Your task to perform on an android device: Open Google Chrome and click the shortcut for Amazon.com Image 0: 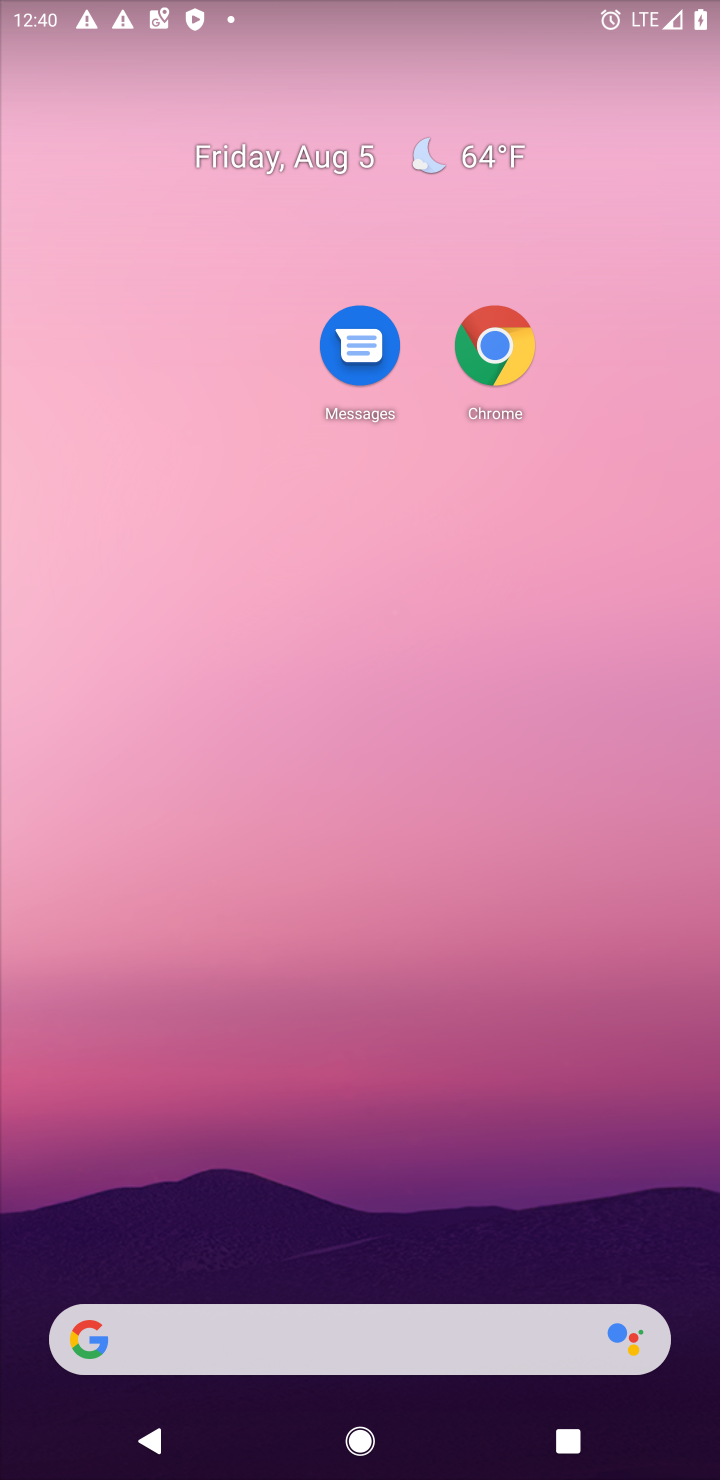
Step 0: drag from (355, 1193) to (67, 48)
Your task to perform on an android device: Open Google Chrome and click the shortcut for Amazon.com Image 1: 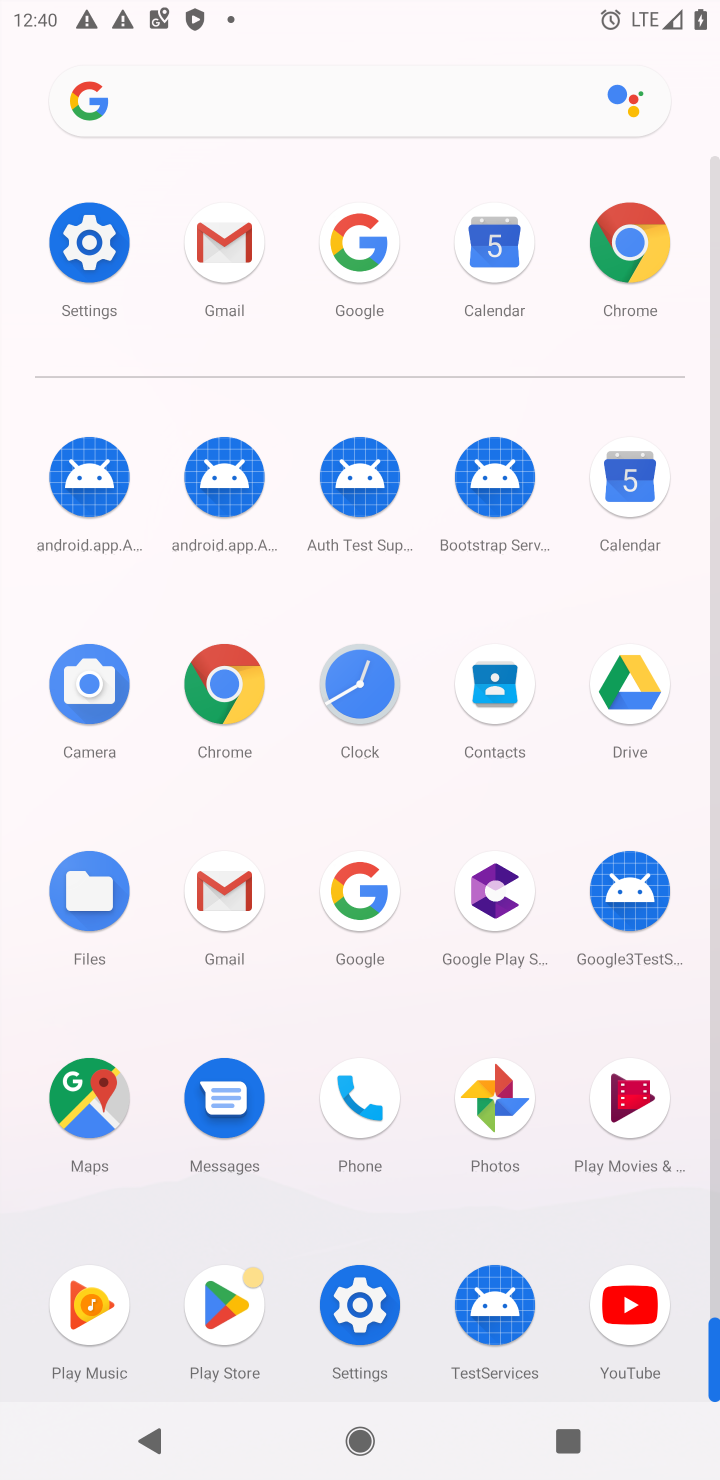
Step 1: click (619, 308)
Your task to perform on an android device: Open Google Chrome and click the shortcut for Amazon.com Image 2: 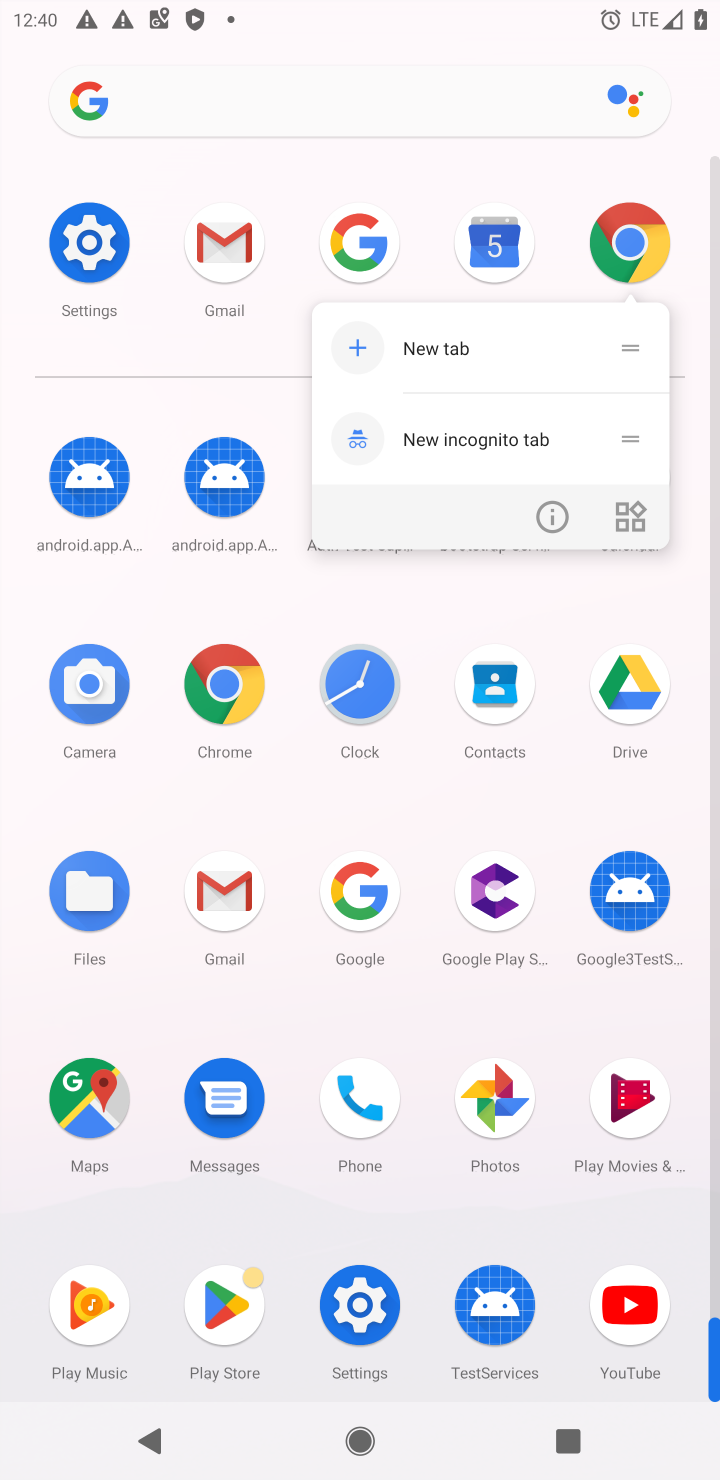
Step 2: click (619, 253)
Your task to perform on an android device: Open Google Chrome and click the shortcut for Amazon.com Image 3: 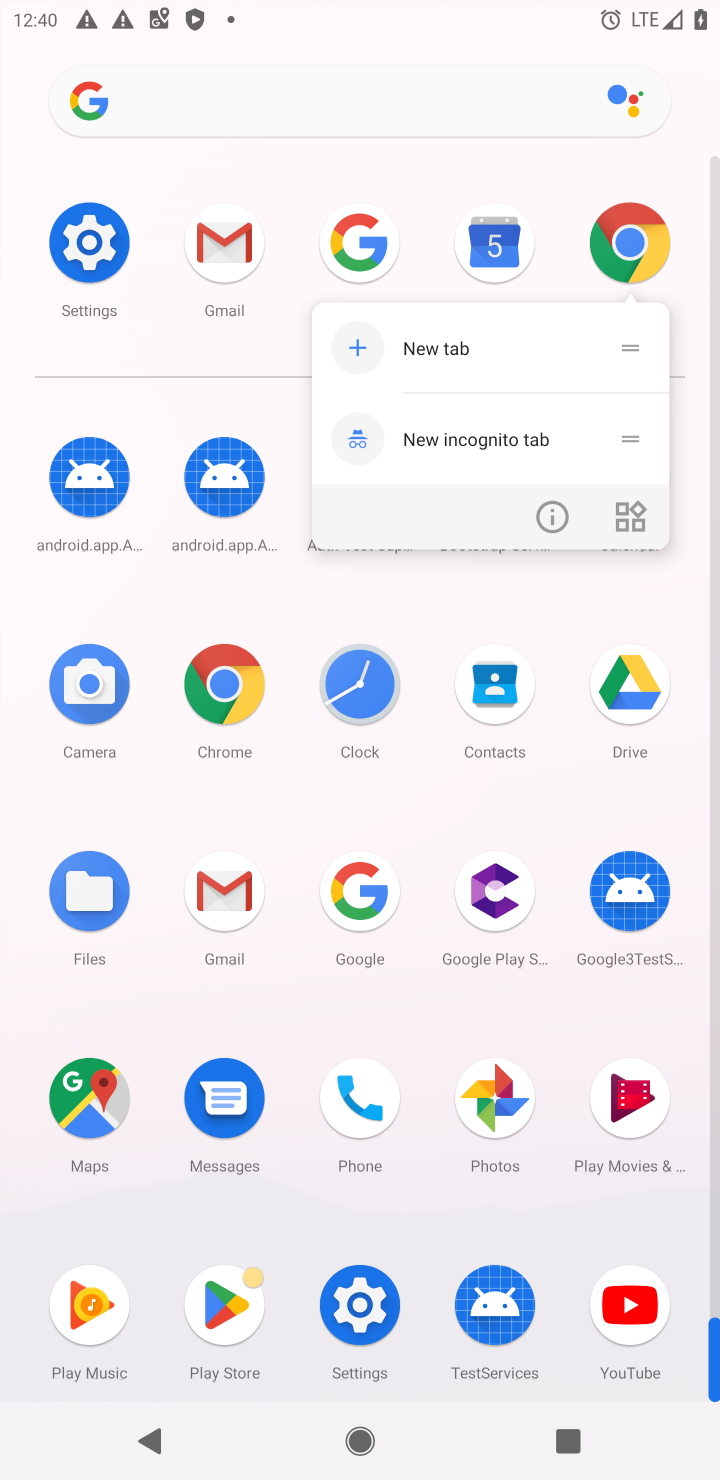
Step 3: click (619, 253)
Your task to perform on an android device: Open Google Chrome and click the shortcut for Amazon.com Image 4: 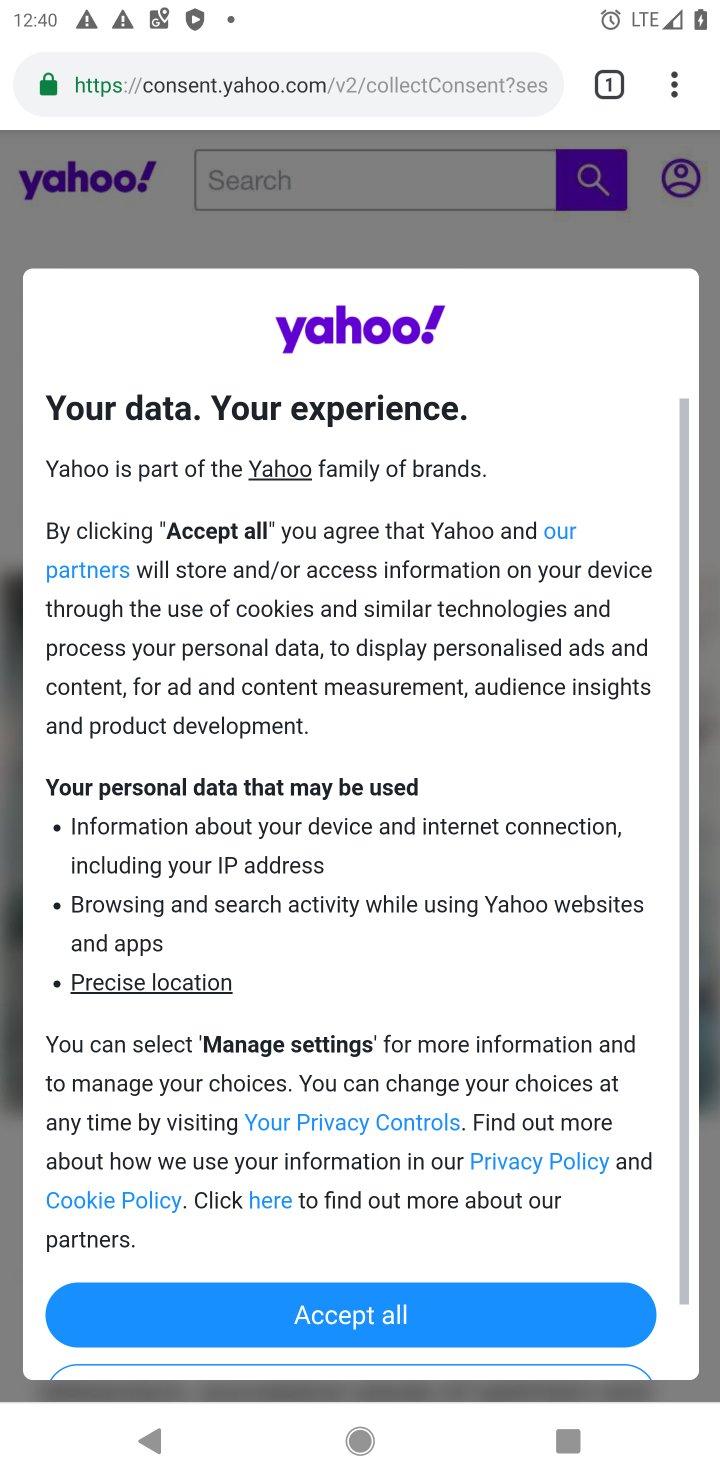
Step 4: click (426, 91)
Your task to perform on an android device: Open Google Chrome and click the shortcut for Amazon.com Image 5: 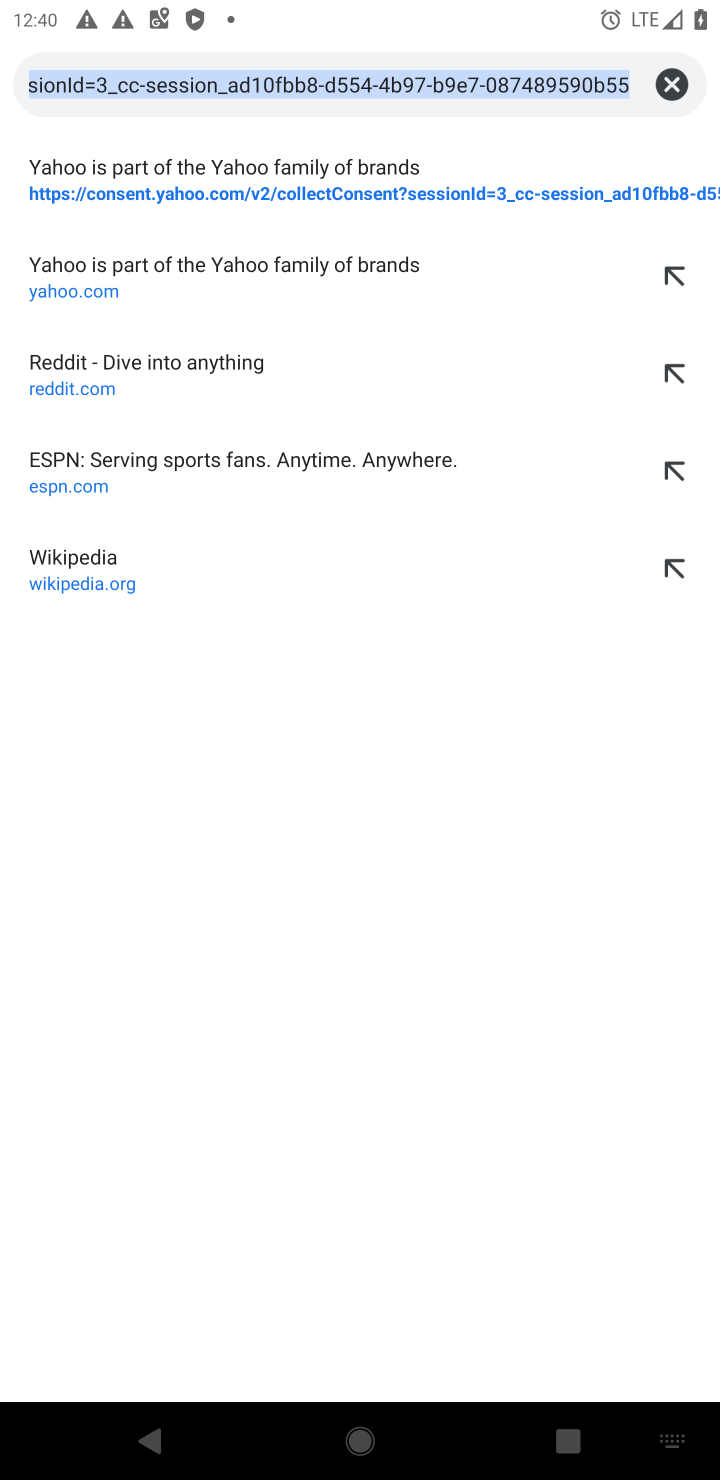
Step 5: click (669, 84)
Your task to perform on an android device: Open Google Chrome and click the shortcut for Amazon.com Image 6: 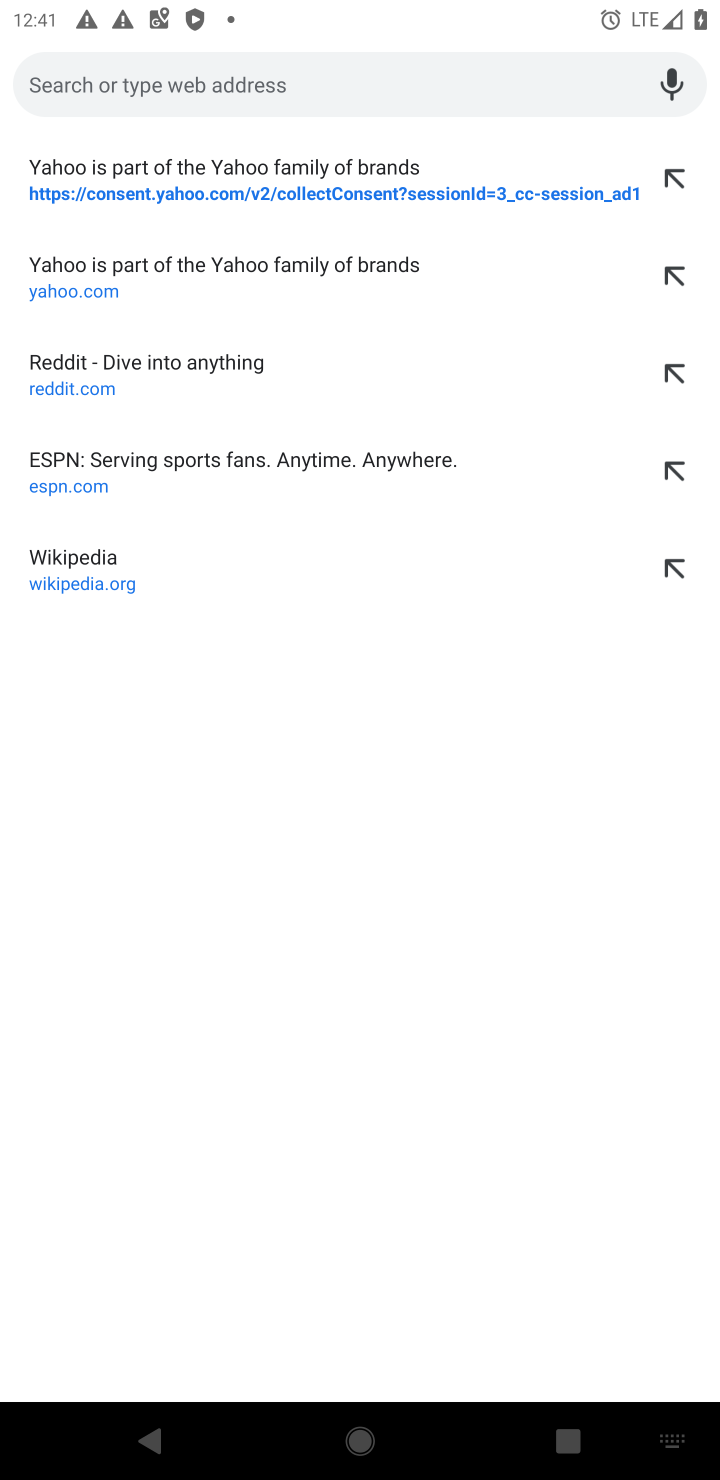
Step 6: type "Amazon.com"
Your task to perform on an android device: Open Google Chrome and click the shortcut for Amazon.com Image 7: 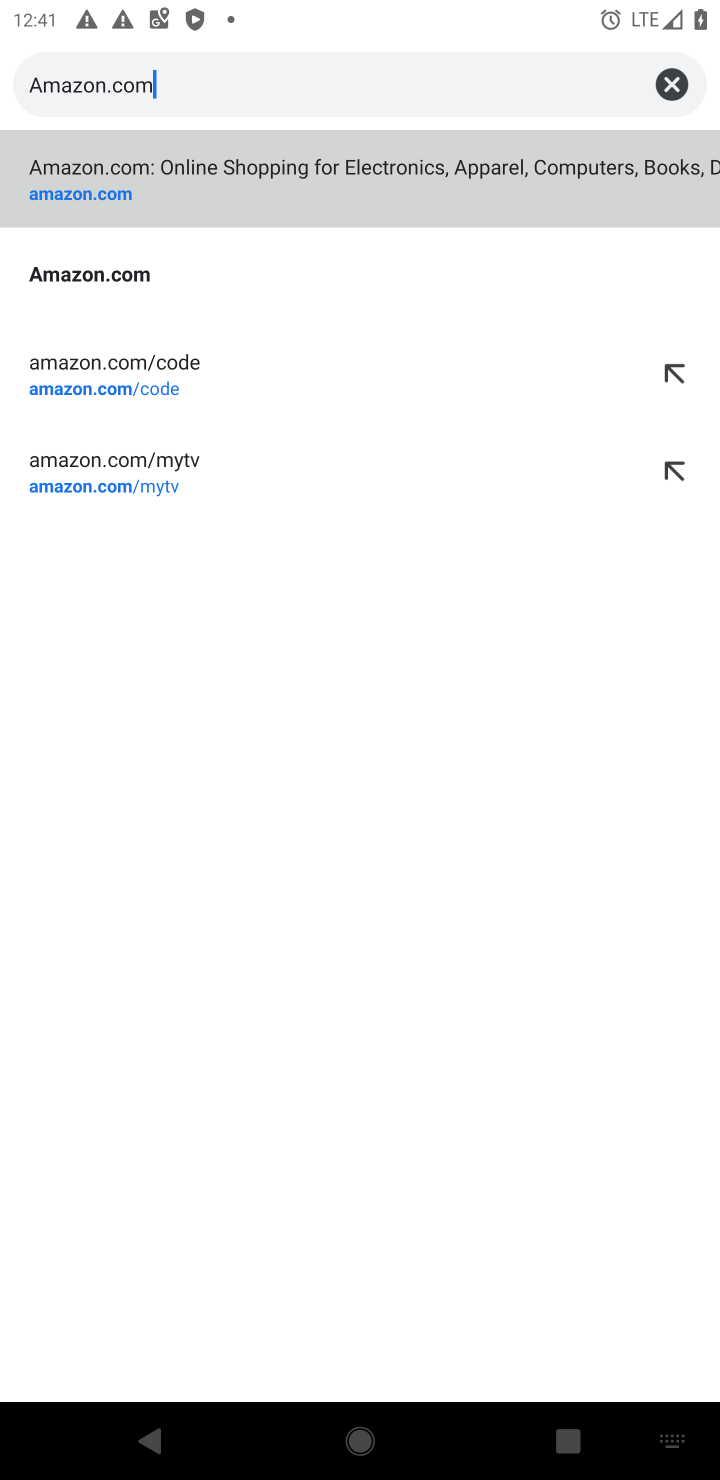
Step 7: click (114, 200)
Your task to perform on an android device: Open Google Chrome and click the shortcut for Amazon.com Image 8: 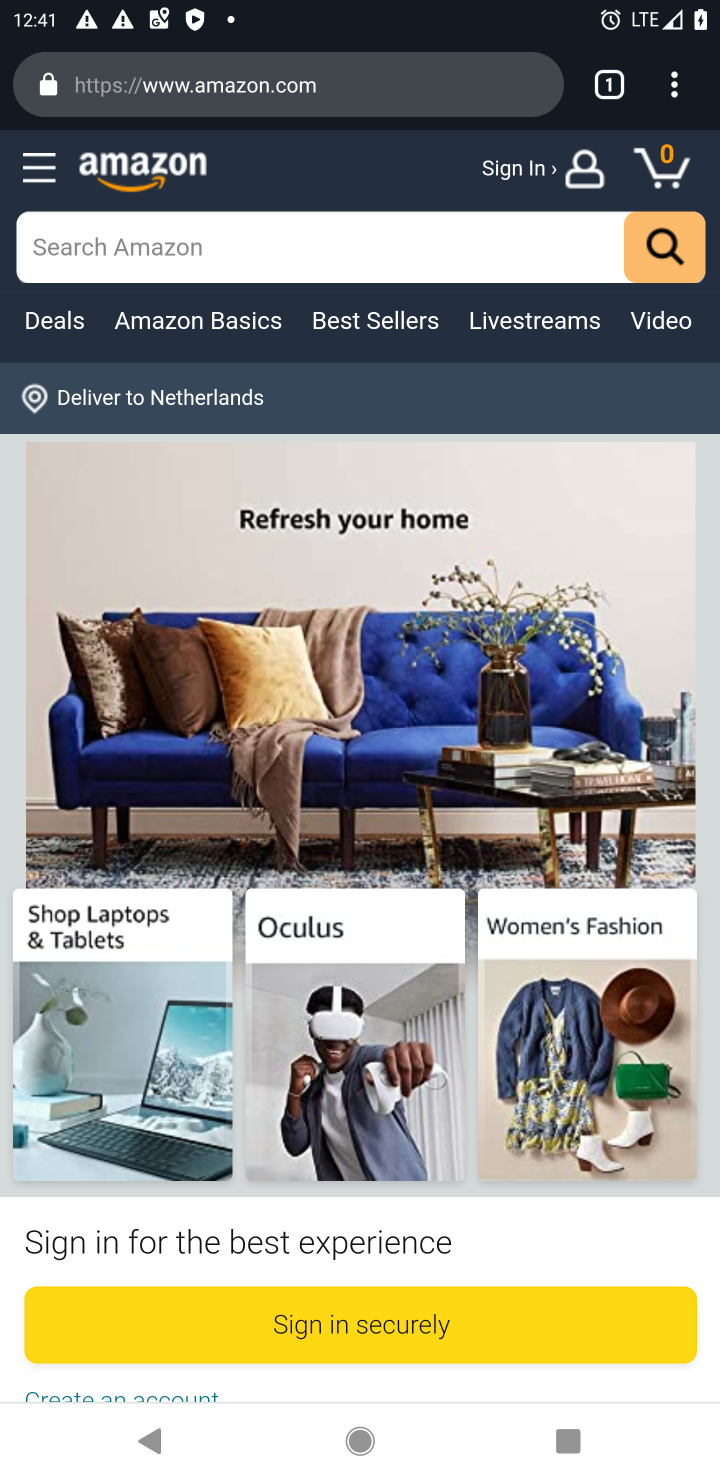
Step 8: drag from (680, 86) to (467, 792)
Your task to perform on an android device: Open Google Chrome and click the shortcut for Amazon.com Image 9: 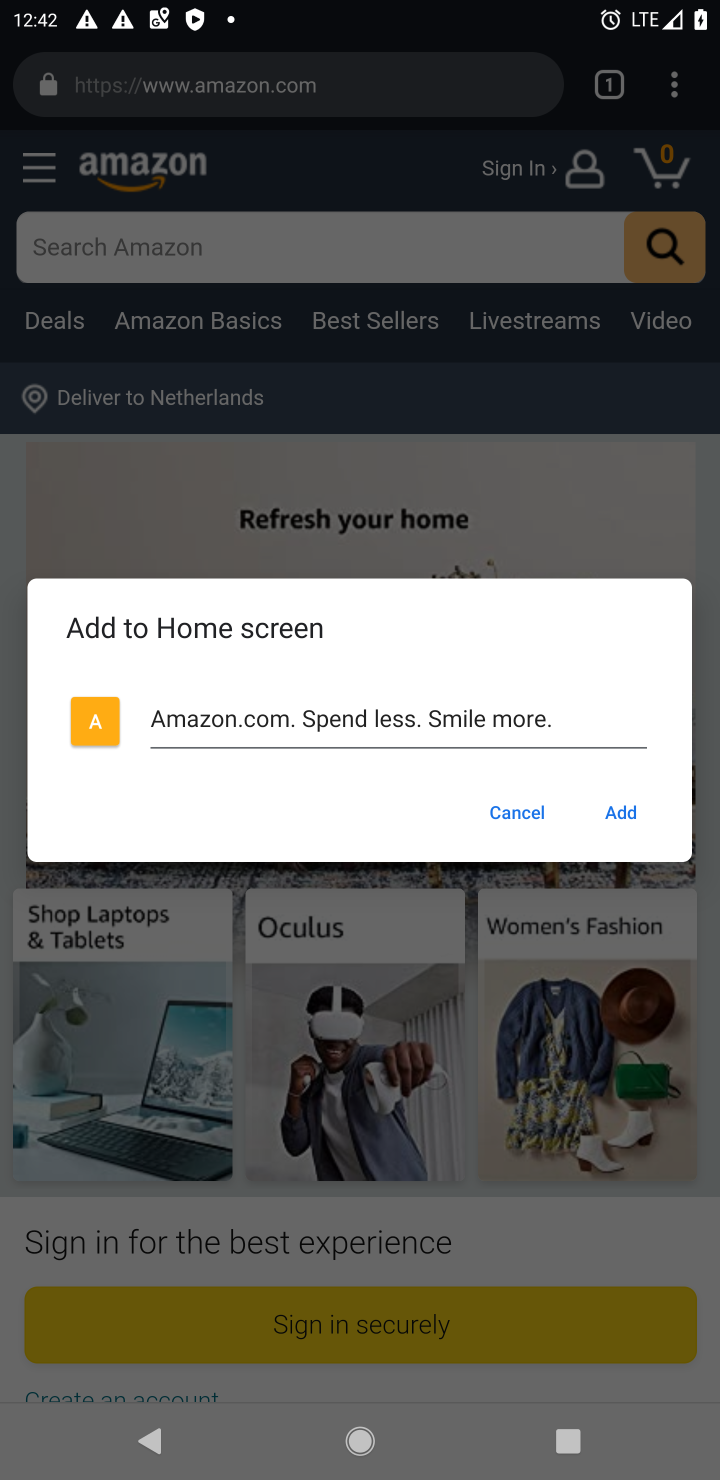
Step 9: click (612, 819)
Your task to perform on an android device: Open Google Chrome and click the shortcut for Amazon.com Image 10: 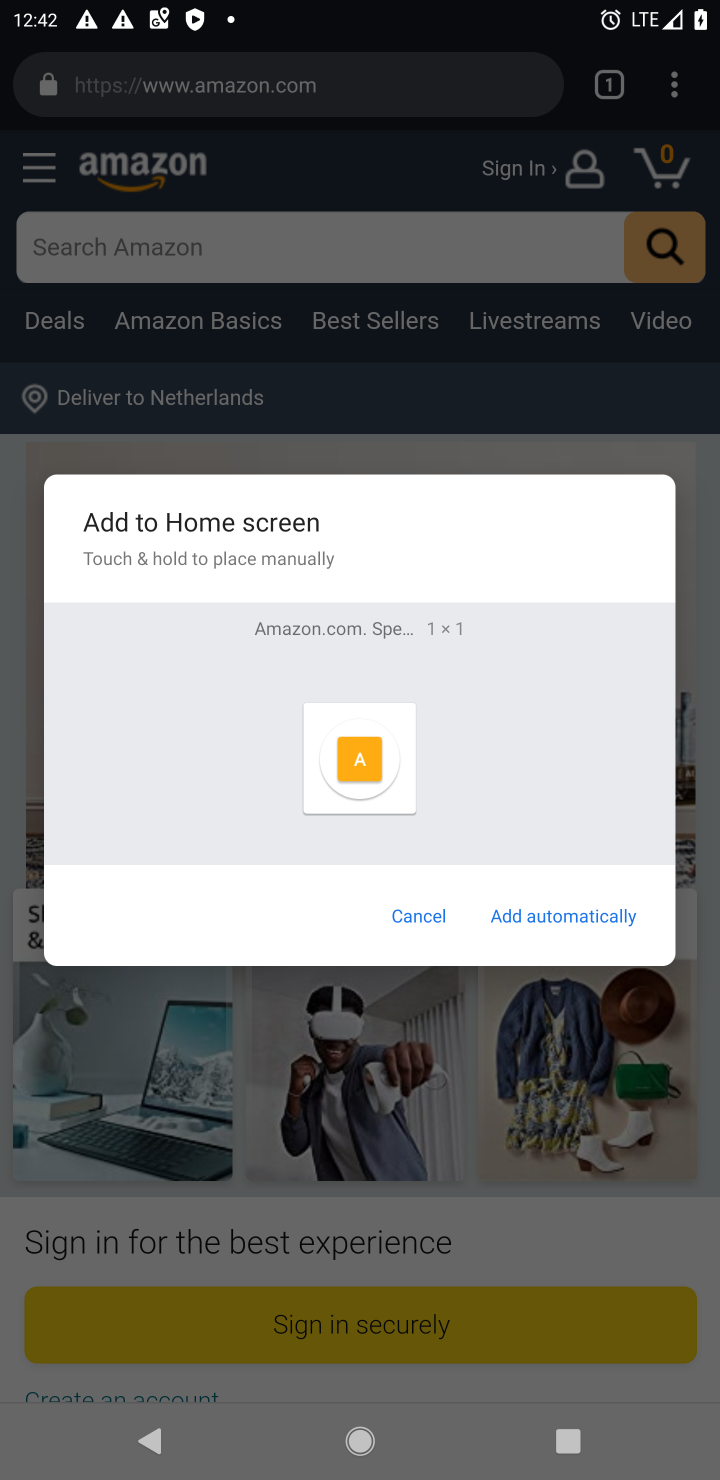
Step 10: click (573, 927)
Your task to perform on an android device: Open Google Chrome and click the shortcut for Amazon.com Image 11: 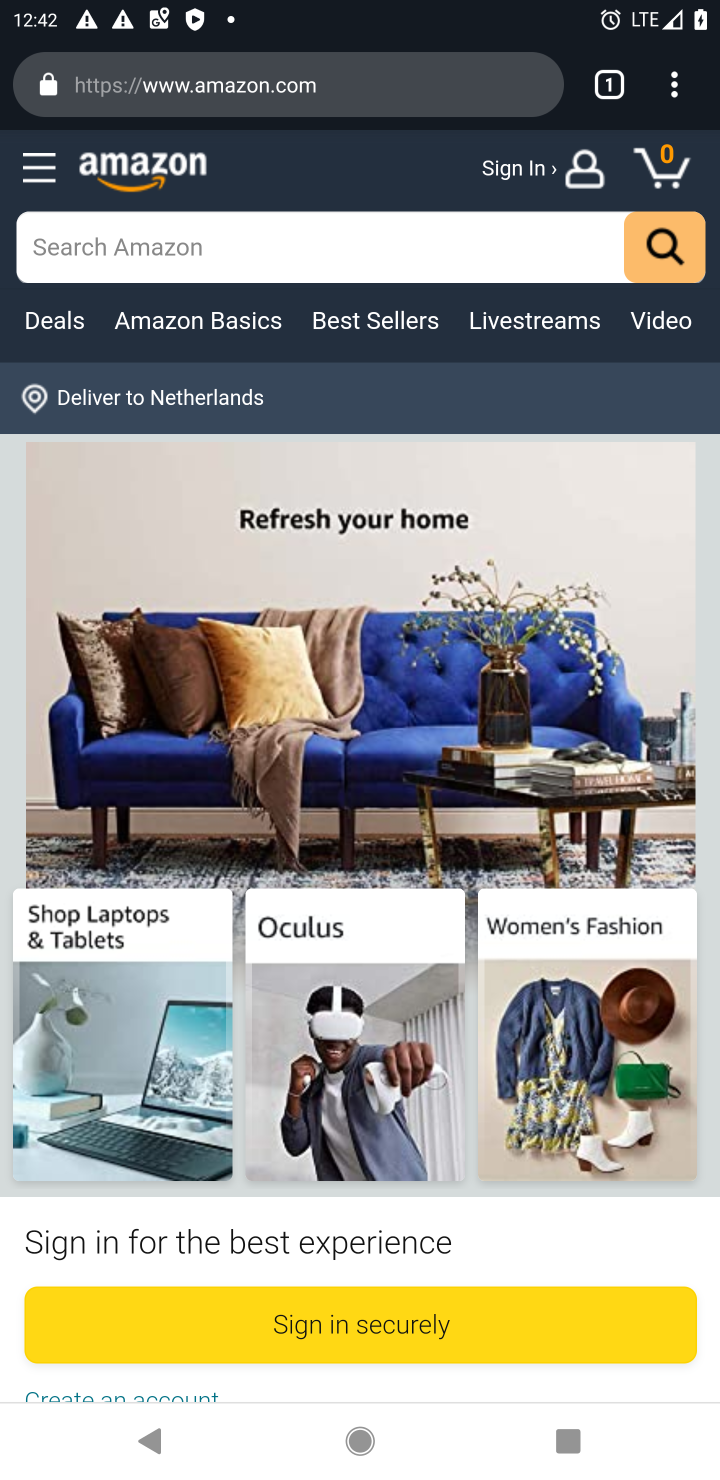
Step 11: press home button
Your task to perform on an android device: Open Google Chrome and click the shortcut for Amazon.com Image 12: 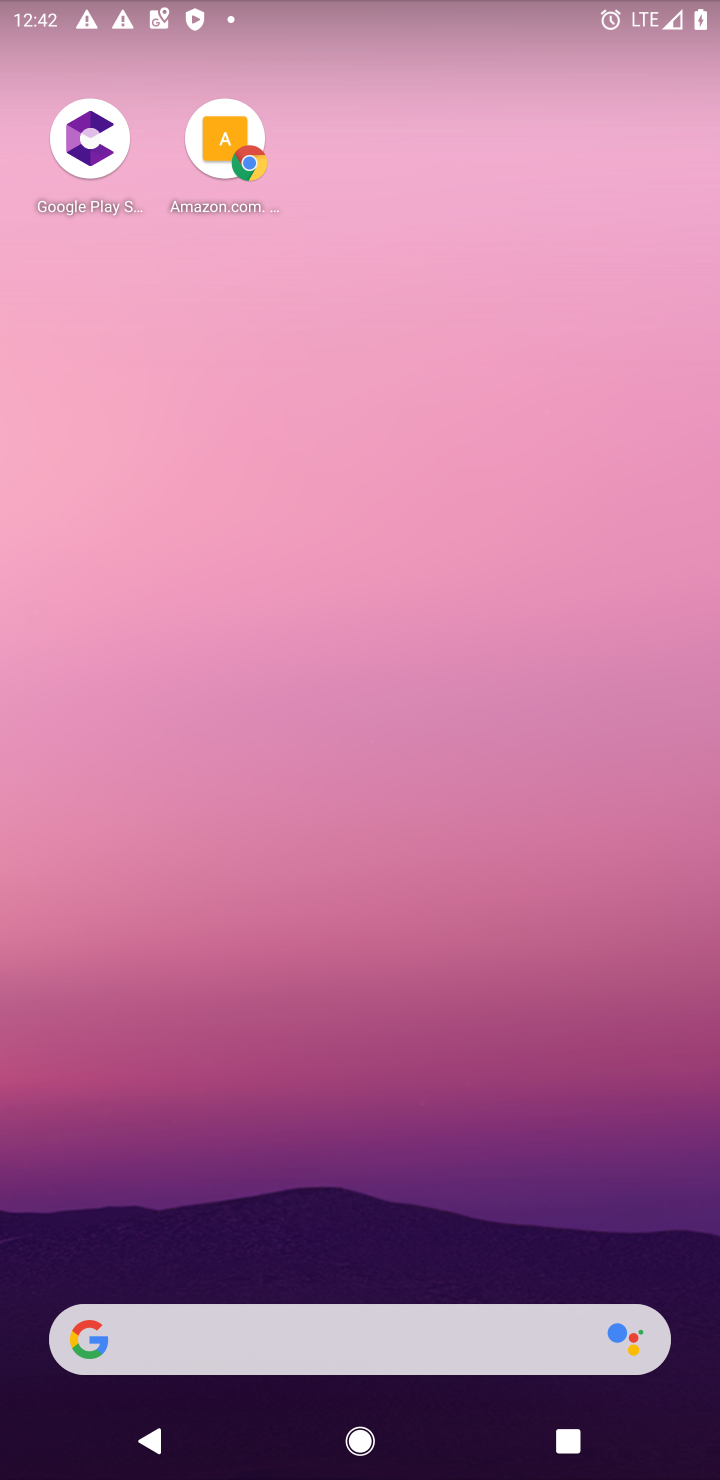
Step 12: drag from (383, 853) to (327, 54)
Your task to perform on an android device: Open Google Chrome and click the shortcut for Amazon.com Image 13: 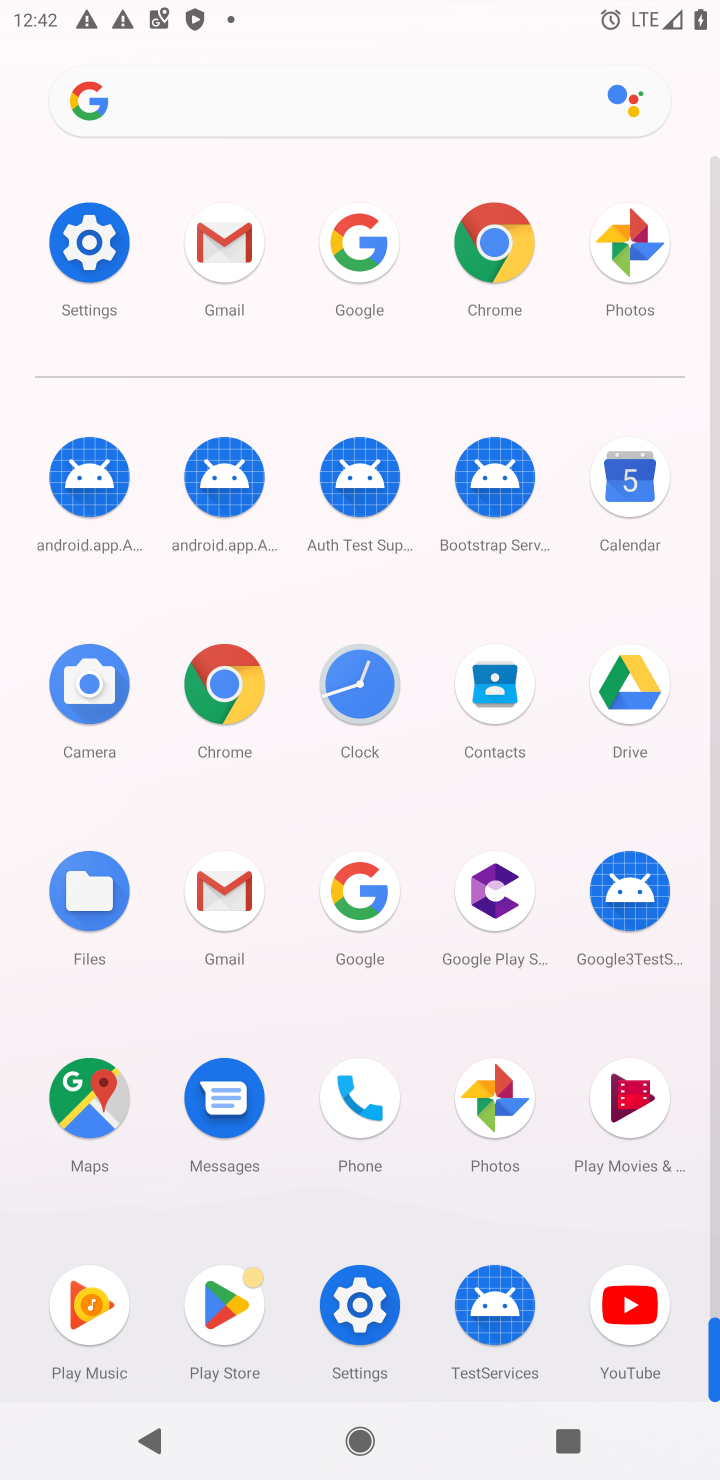
Step 13: click (491, 275)
Your task to perform on an android device: Open Google Chrome and click the shortcut for Amazon.com Image 14: 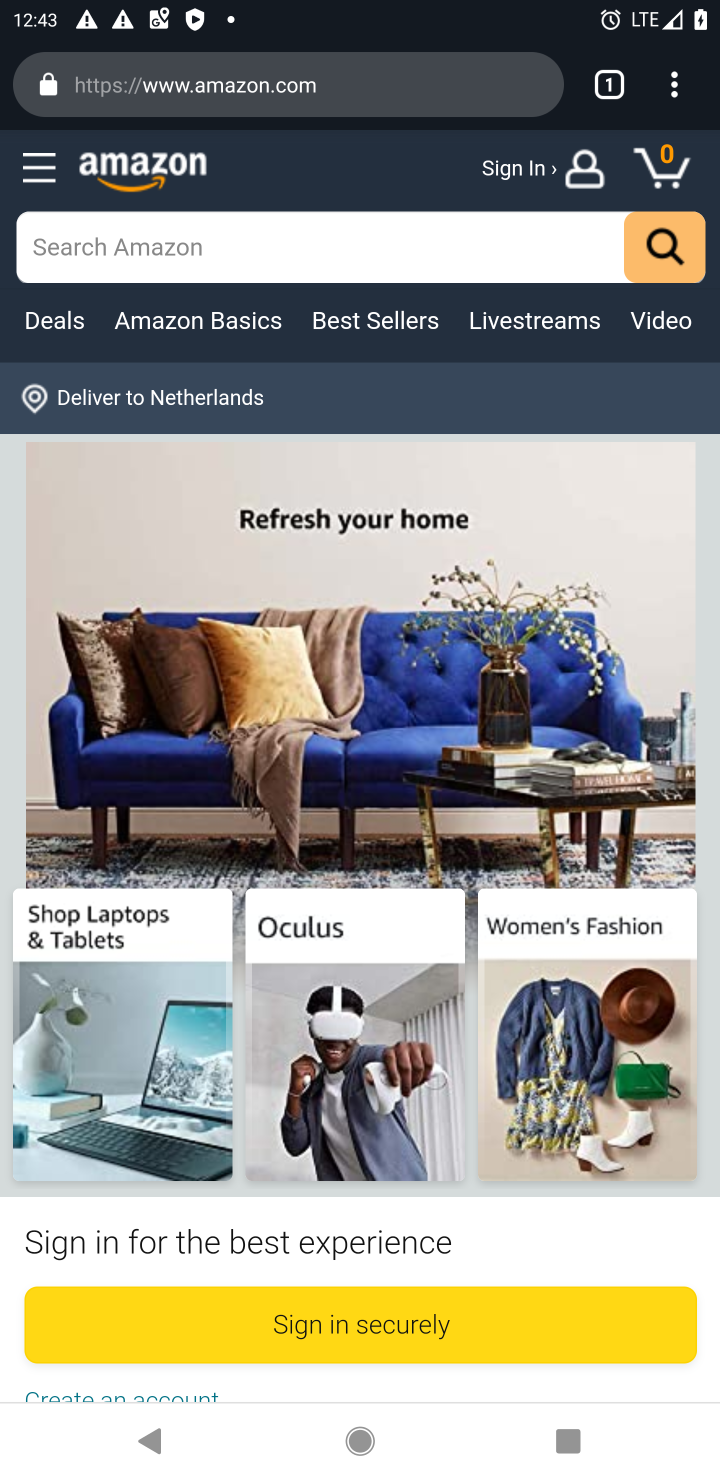
Step 14: drag from (684, 81) to (453, 790)
Your task to perform on an android device: Open Google Chrome and click the shortcut for Amazon.com Image 15: 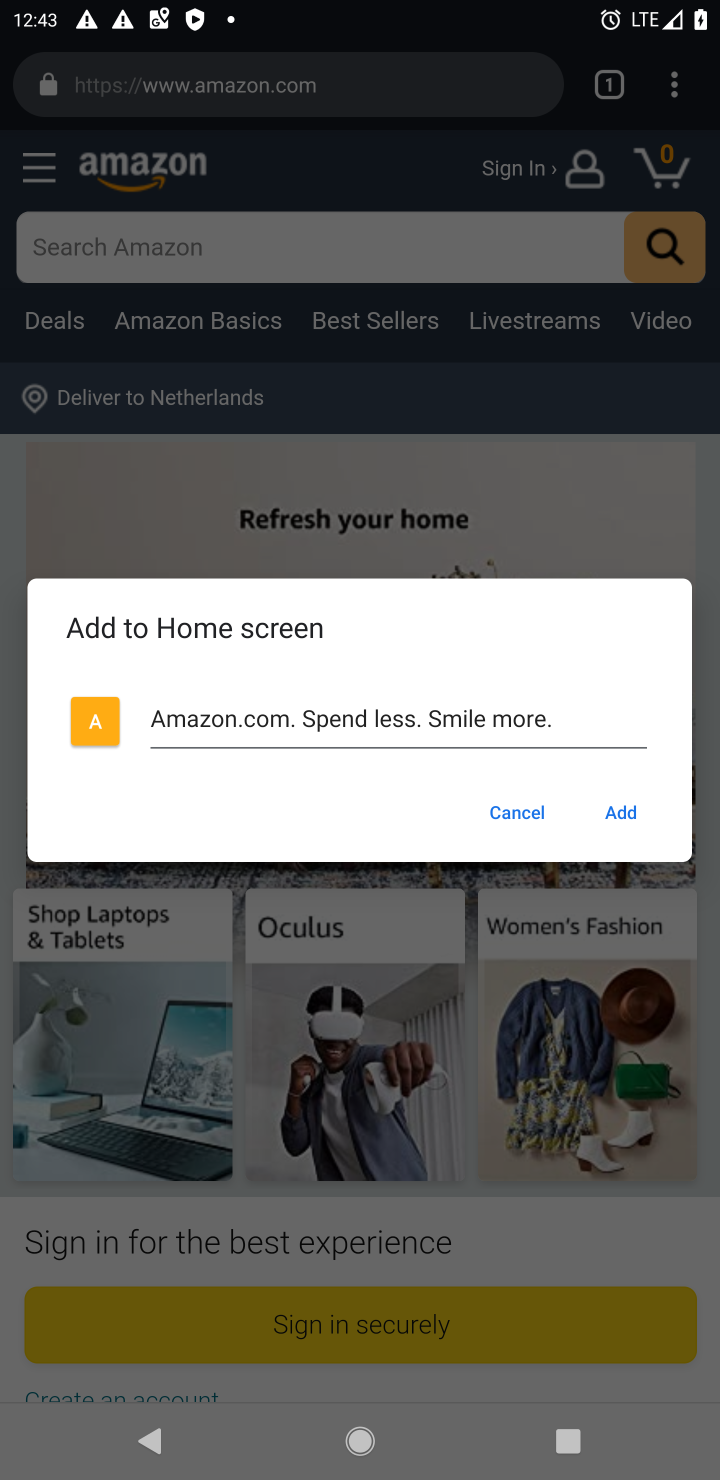
Step 15: click (621, 803)
Your task to perform on an android device: Open Google Chrome and click the shortcut for Amazon.com Image 16: 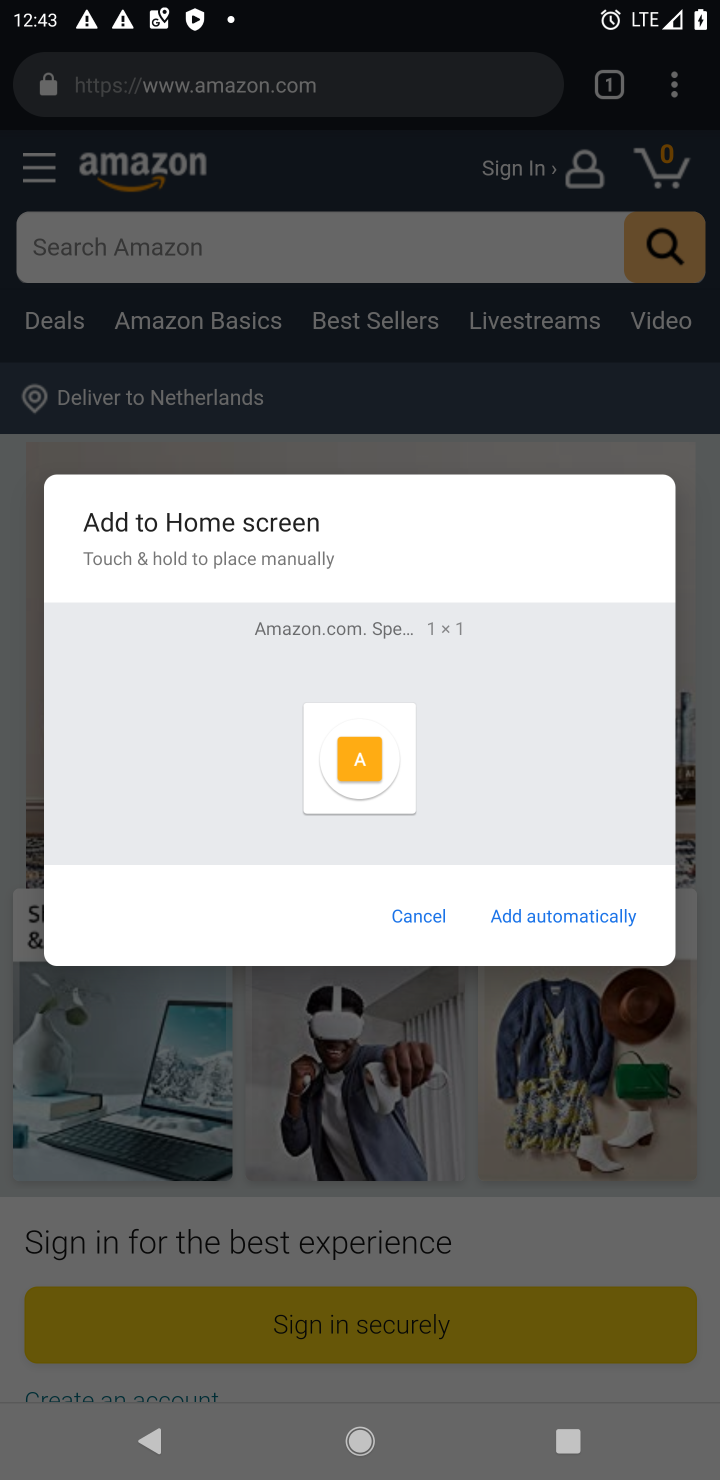
Step 16: click (600, 921)
Your task to perform on an android device: Open Google Chrome and click the shortcut for Amazon.com Image 17: 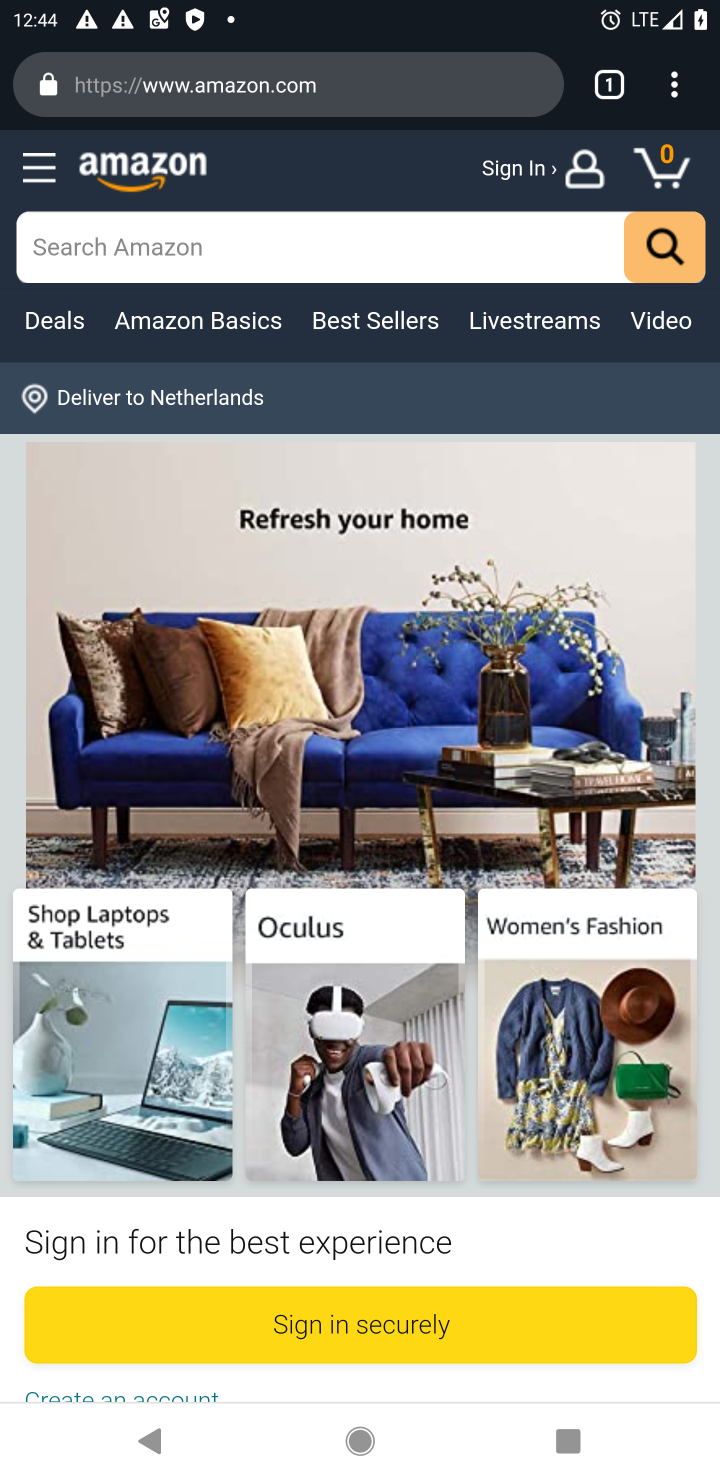
Step 17: task complete